Your task to perform on an android device: Show me productivity apps on the Play Store Image 0: 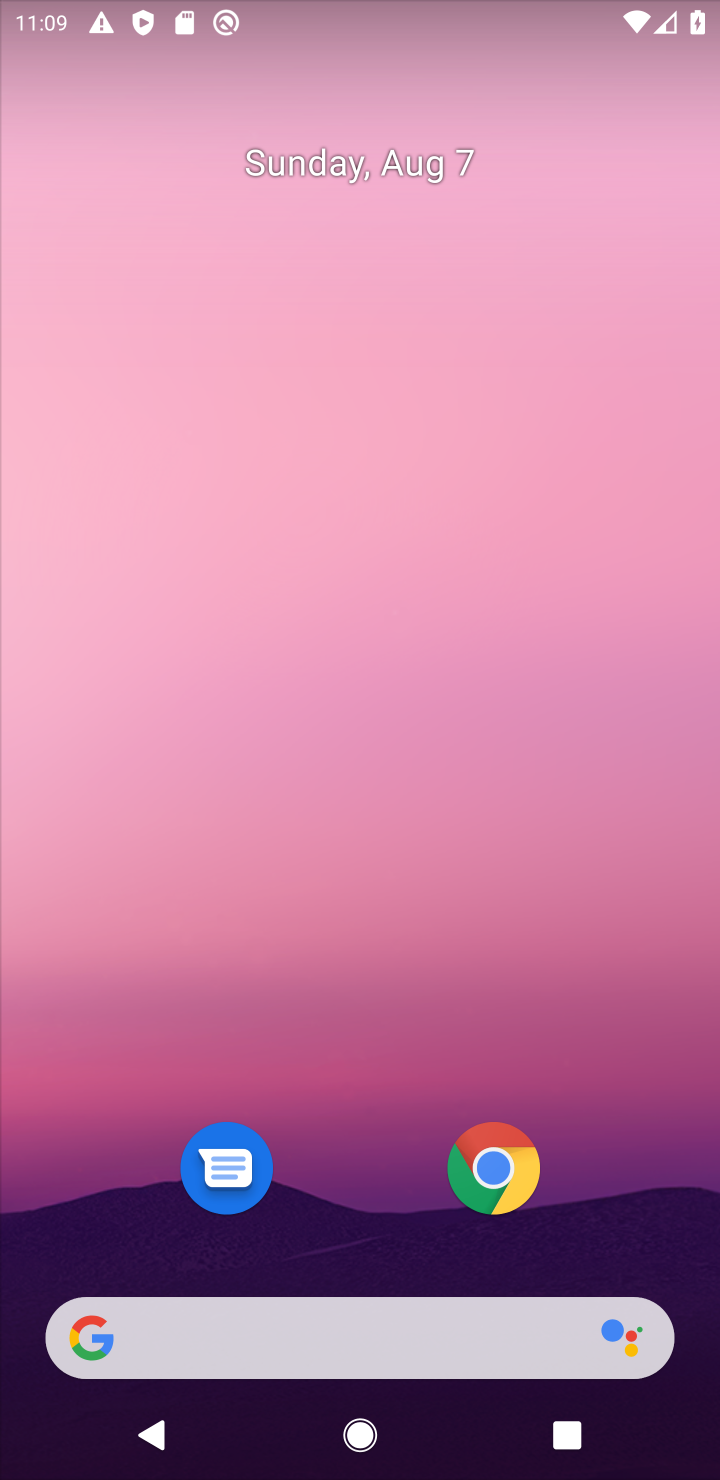
Step 0: drag from (54, 1450) to (290, 815)
Your task to perform on an android device: Show me productivity apps on the Play Store Image 1: 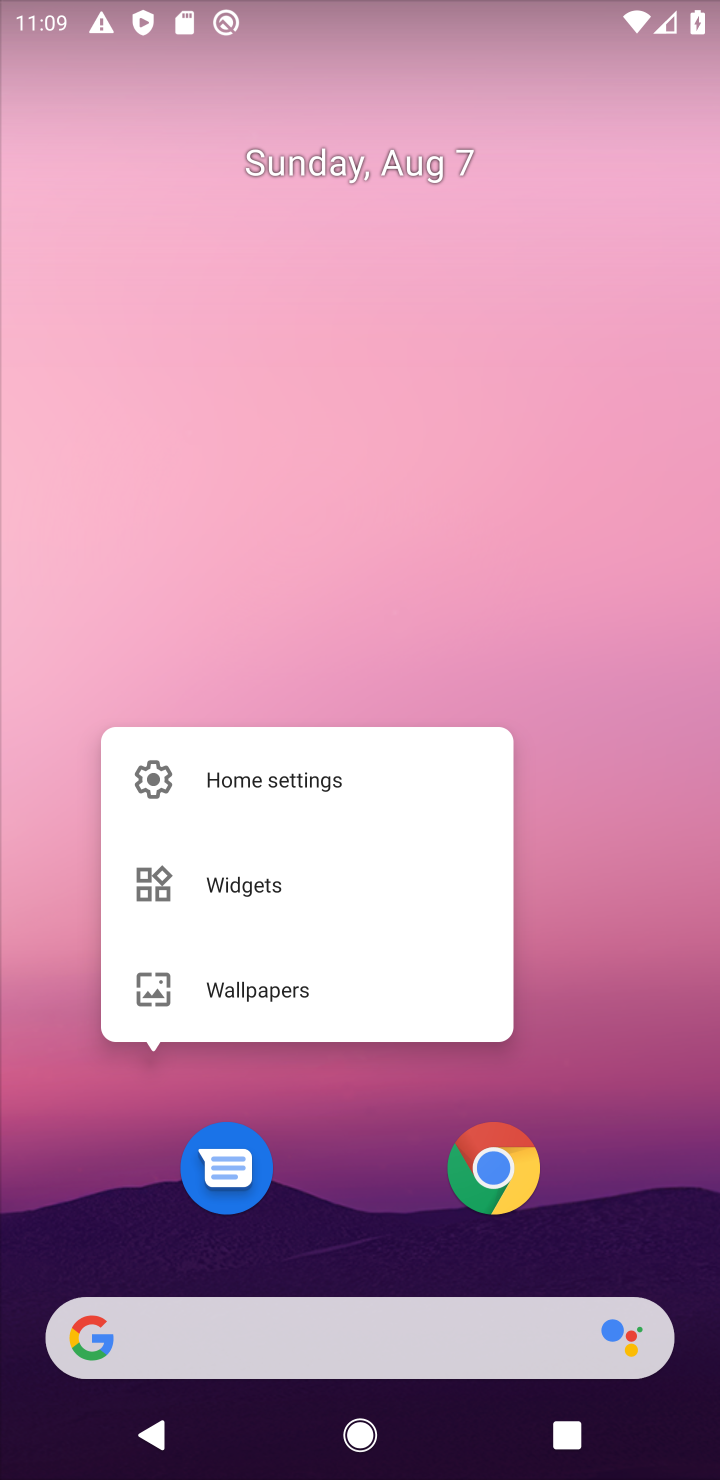
Step 1: click (25, 1382)
Your task to perform on an android device: Show me productivity apps on the Play Store Image 2: 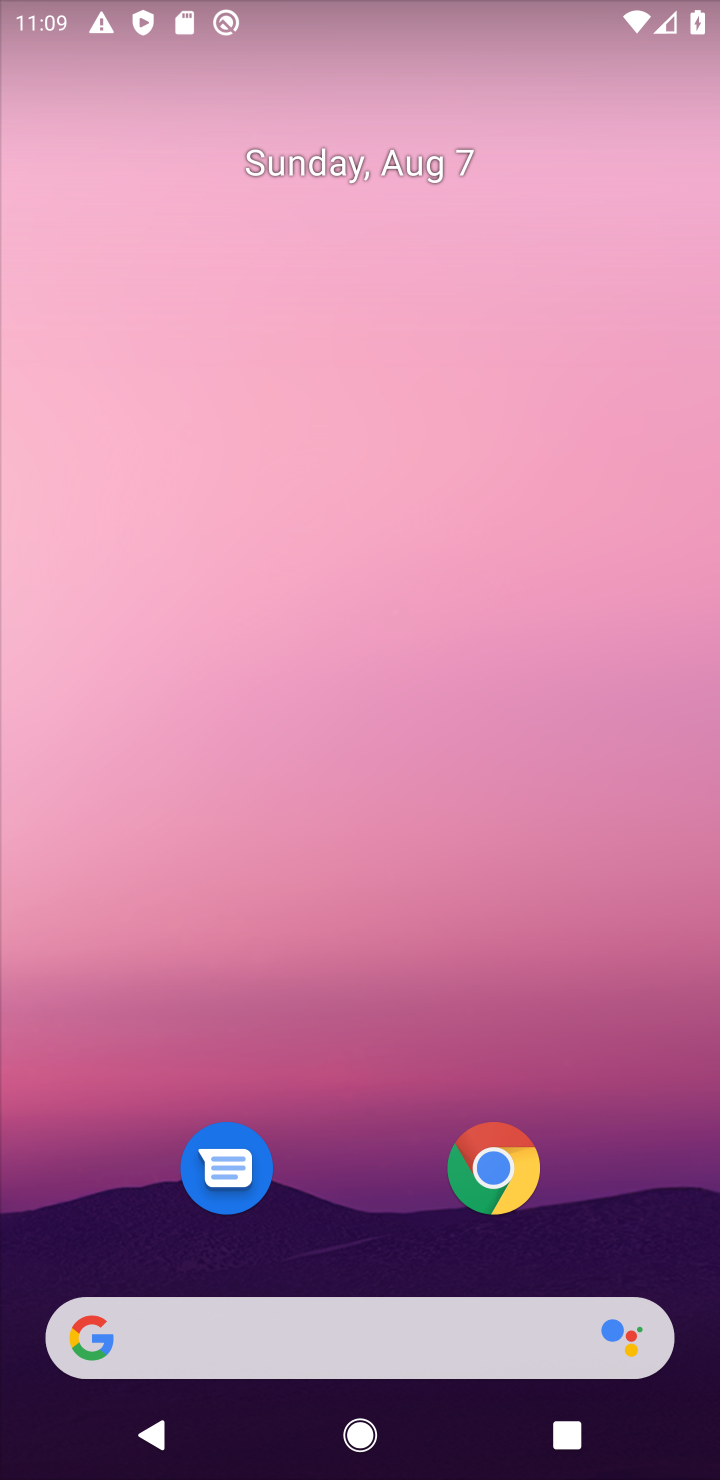
Step 2: drag from (35, 1404) to (591, 277)
Your task to perform on an android device: Show me productivity apps on the Play Store Image 3: 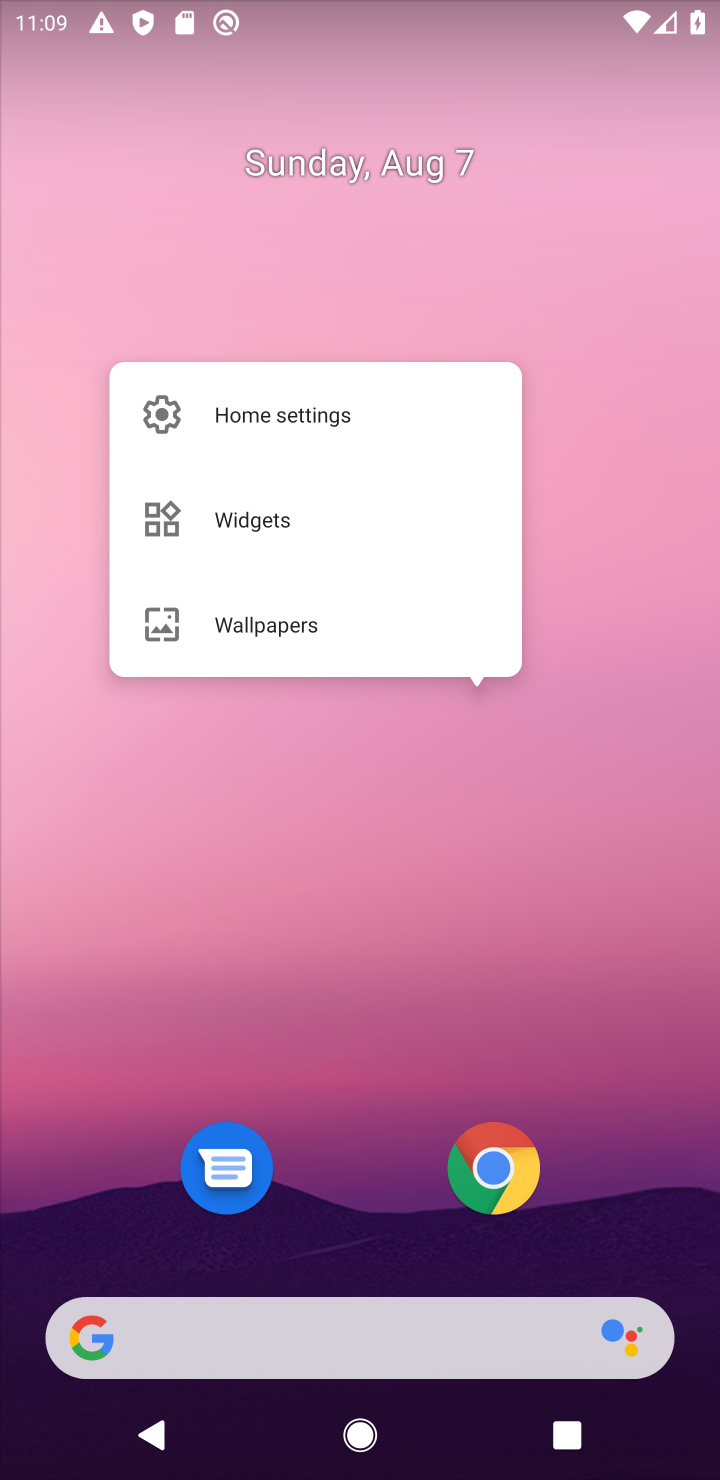
Step 3: click (65, 1392)
Your task to perform on an android device: Show me productivity apps on the Play Store Image 4: 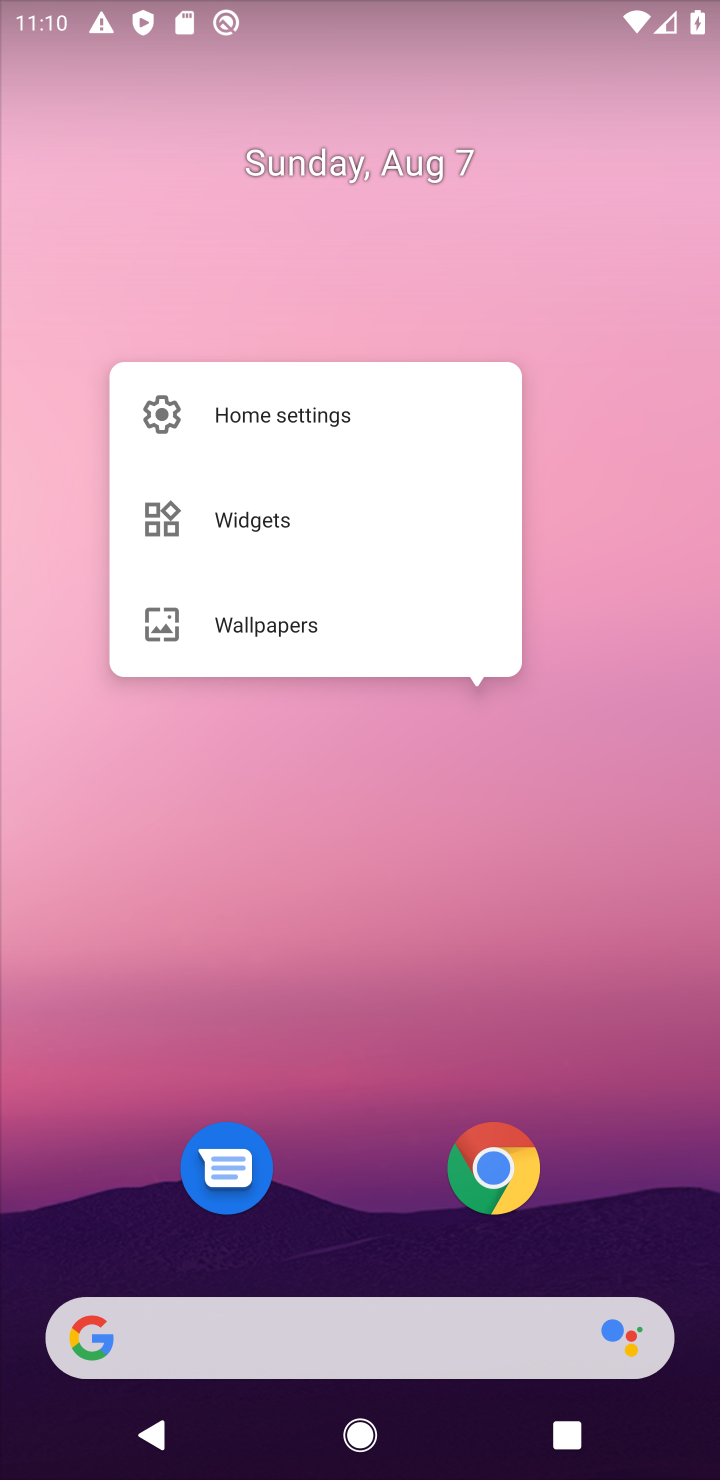
Step 4: task complete